Your task to perform on an android device: When is my next meeting? Image 0: 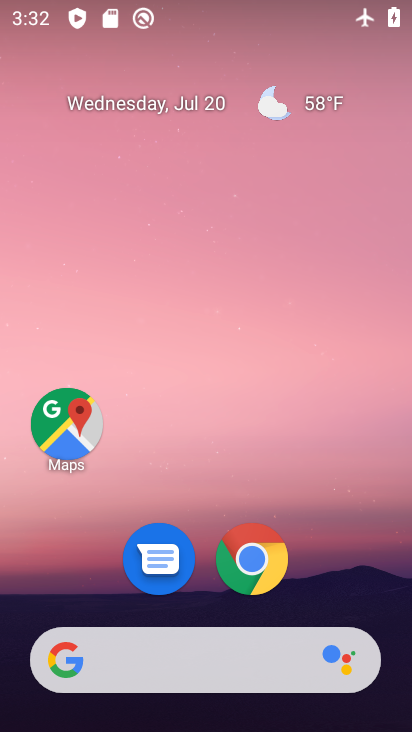
Step 0: drag from (84, 579) to (118, 23)
Your task to perform on an android device: When is my next meeting? Image 1: 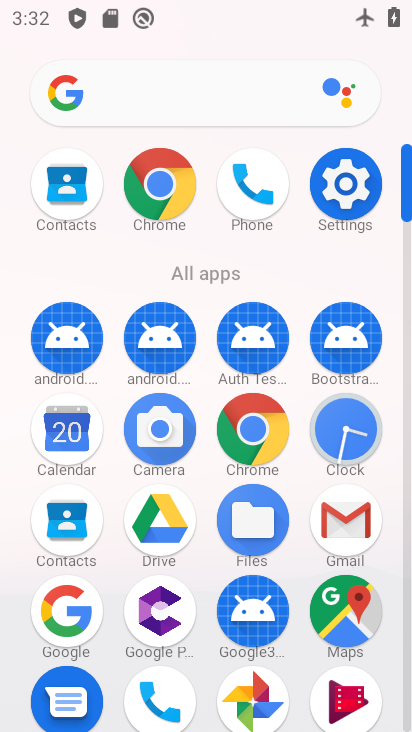
Step 1: click (73, 423)
Your task to perform on an android device: When is my next meeting? Image 2: 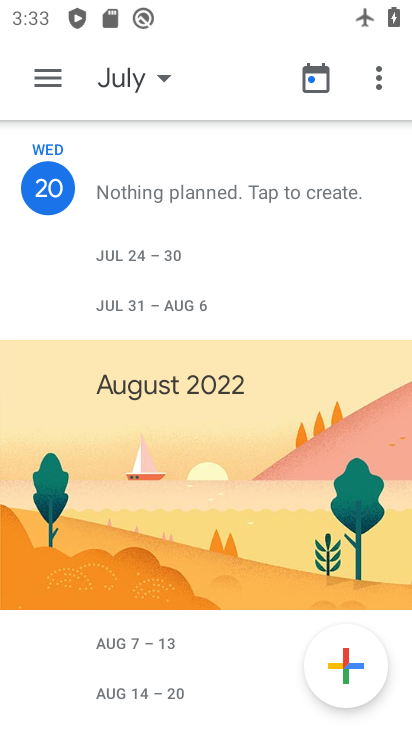
Step 2: task complete